Your task to perform on an android device: Search for vegetarian restaurants on Maps Image 0: 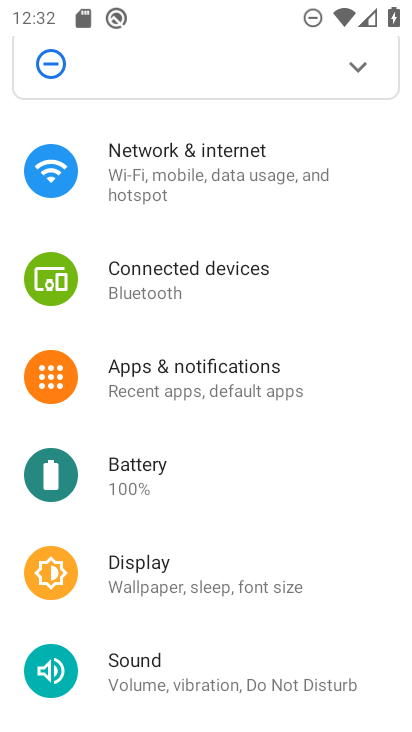
Step 0: press home button
Your task to perform on an android device: Search for vegetarian restaurants on Maps Image 1: 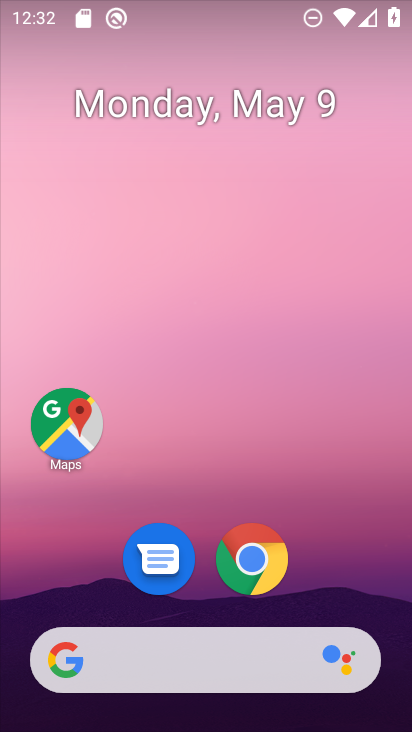
Step 1: drag from (375, 614) to (383, 17)
Your task to perform on an android device: Search for vegetarian restaurants on Maps Image 2: 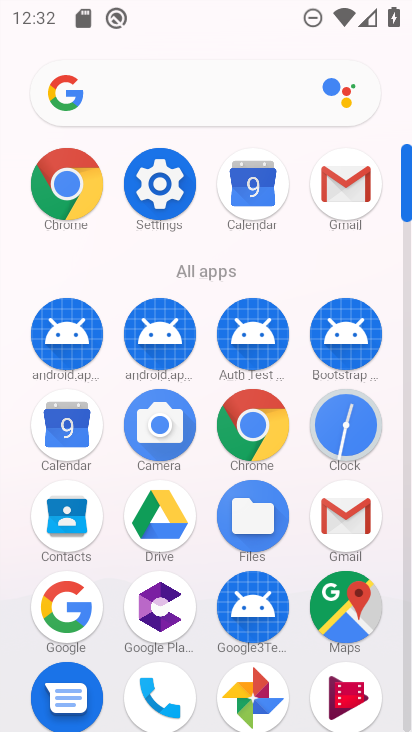
Step 2: click (335, 603)
Your task to perform on an android device: Search for vegetarian restaurants on Maps Image 3: 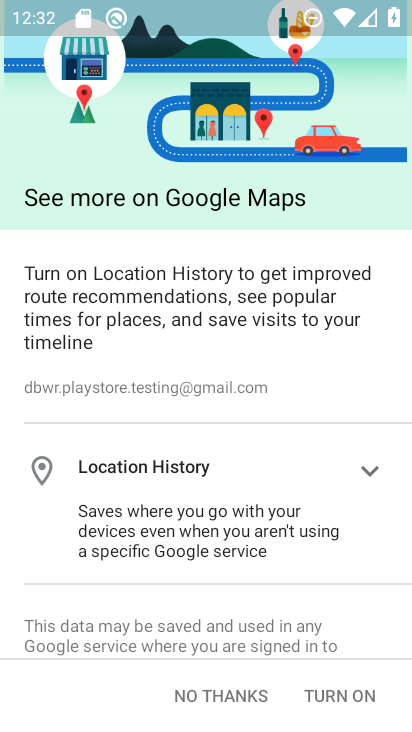
Step 3: click (204, 704)
Your task to perform on an android device: Search for vegetarian restaurants on Maps Image 4: 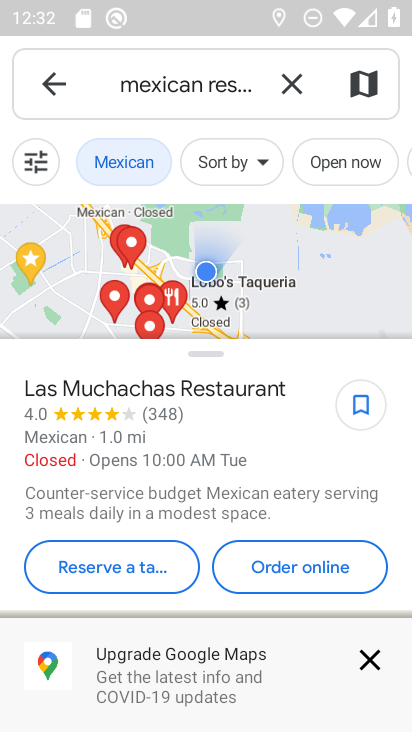
Step 4: click (289, 84)
Your task to perform on an android device: Search for vegetarian restaurants on Maps Image 5: 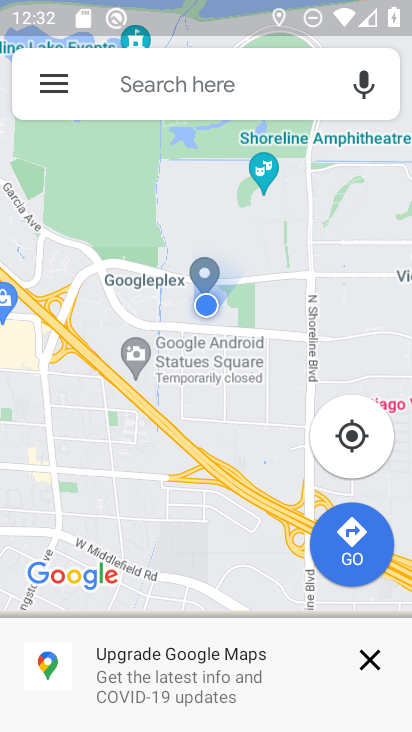
Step 5: click (219, 71)
Your task to perform on an android device: Search for vegetarian restaurants on Maps Image 6: 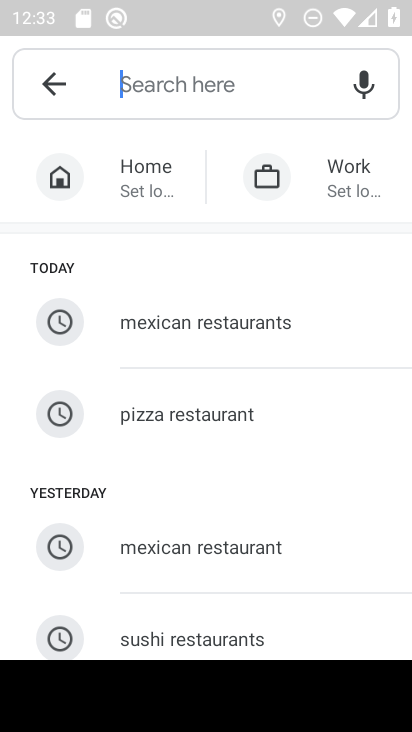
Step 6: type " vegetarian restaurants"
Your task to perform on an android device: Search for vegetarian restaurants on Maps Image 7: 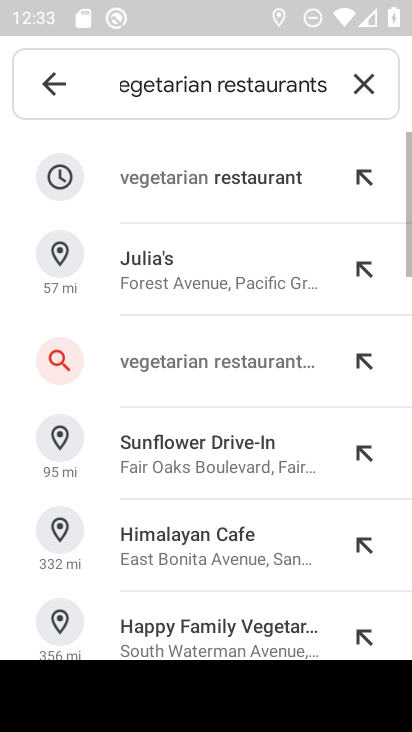
Step 7: click (171, 184)
Your task to perform on an android device: Search for vegetarian restaurants on Maps Image 8: 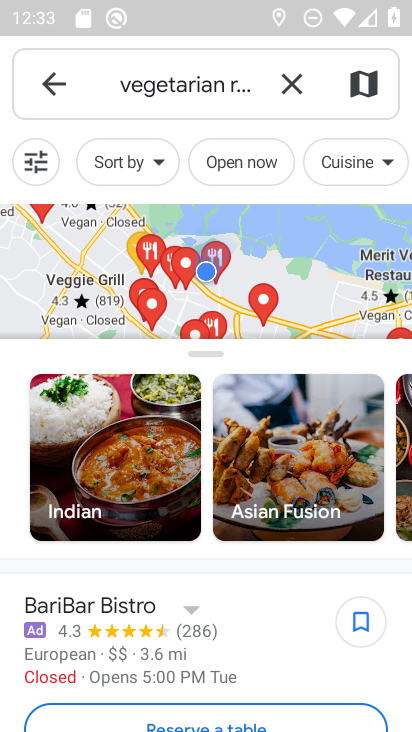
Step 8: task complete